Your task to perform on an android device: Add "alienware area 51" to the cart on costco, then select checkout. Image 0: 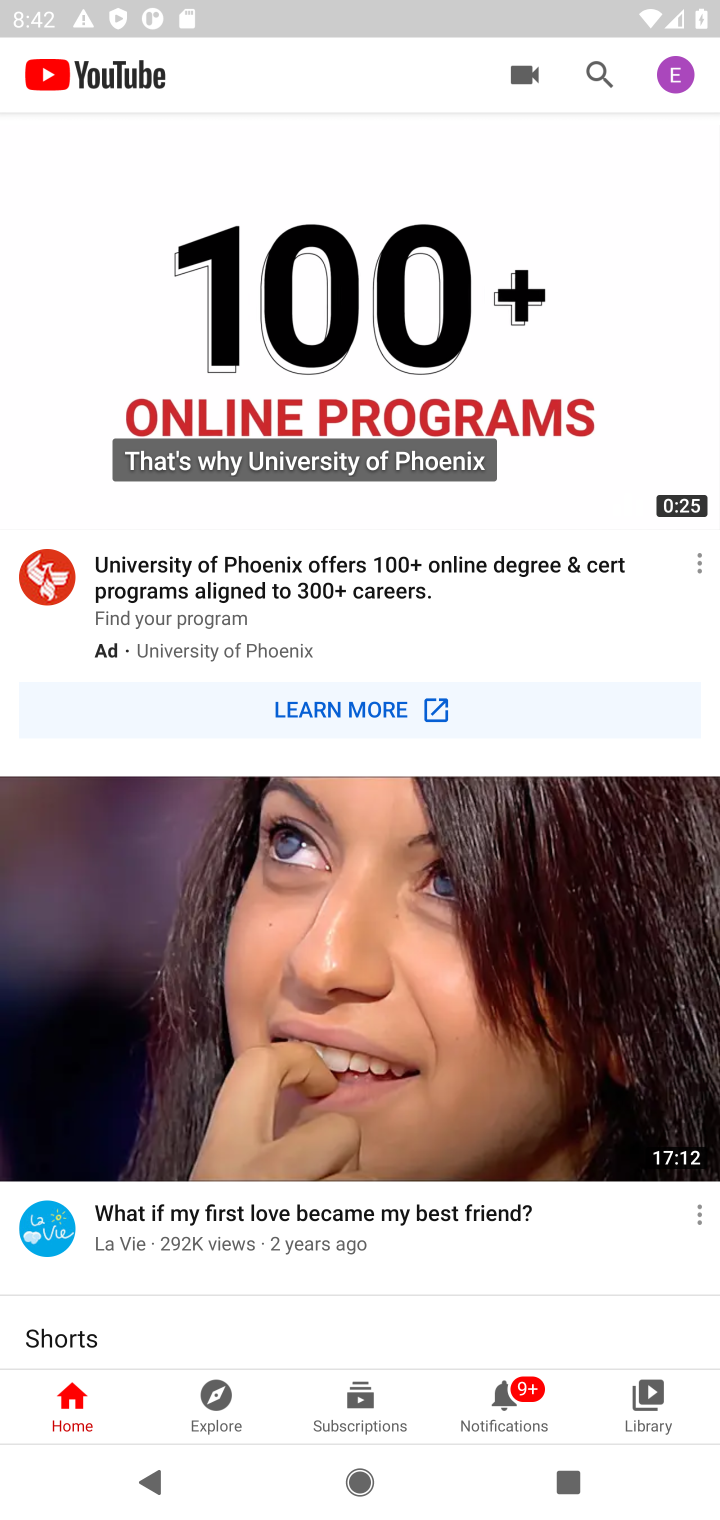
Step 0: press home button
Your task to perform on an android device: Add "alienware area 51" to the cart on costco, then select checkout. Image 1: 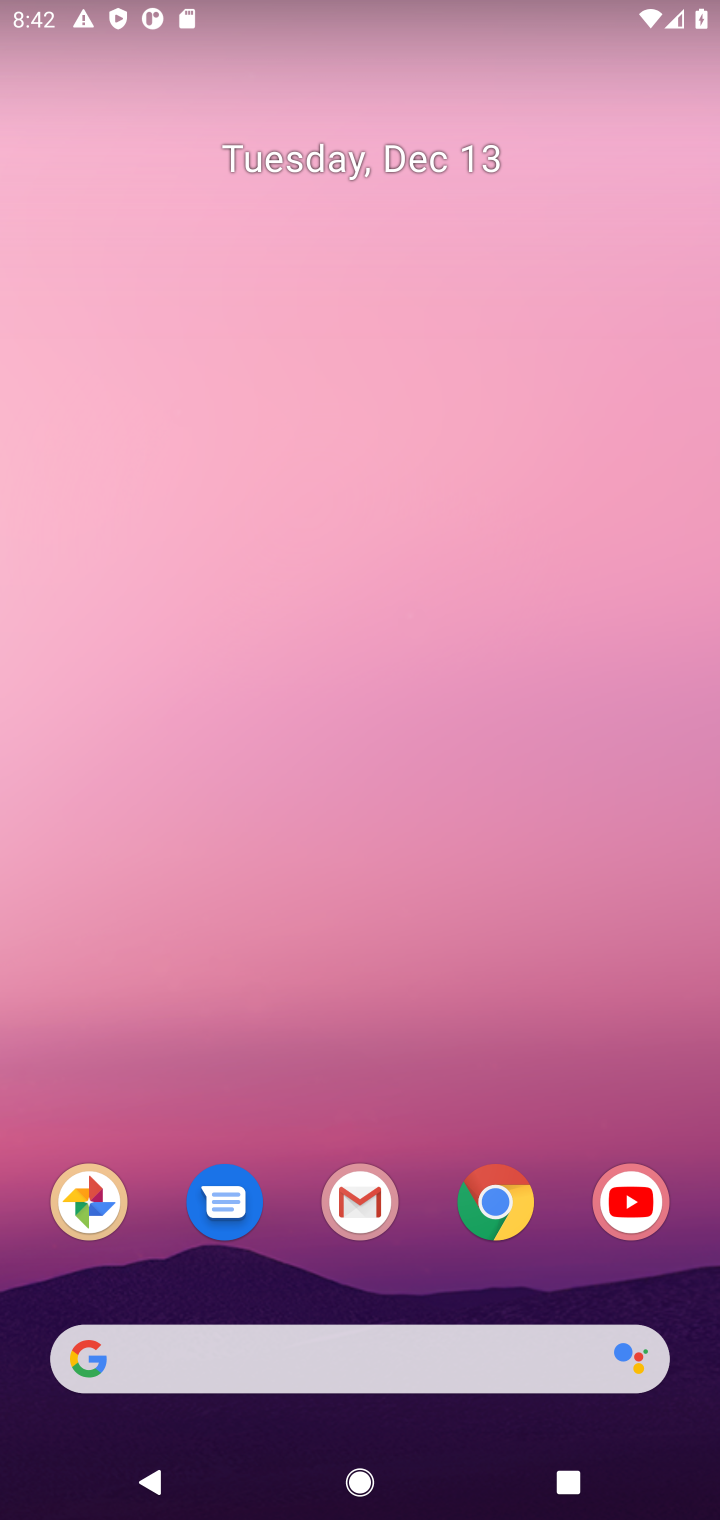
Step 1: click (497, 1203)
Your task to perform on an android device: Add "alienware area 51" to the cart on costco, then select checkout. Image 2: 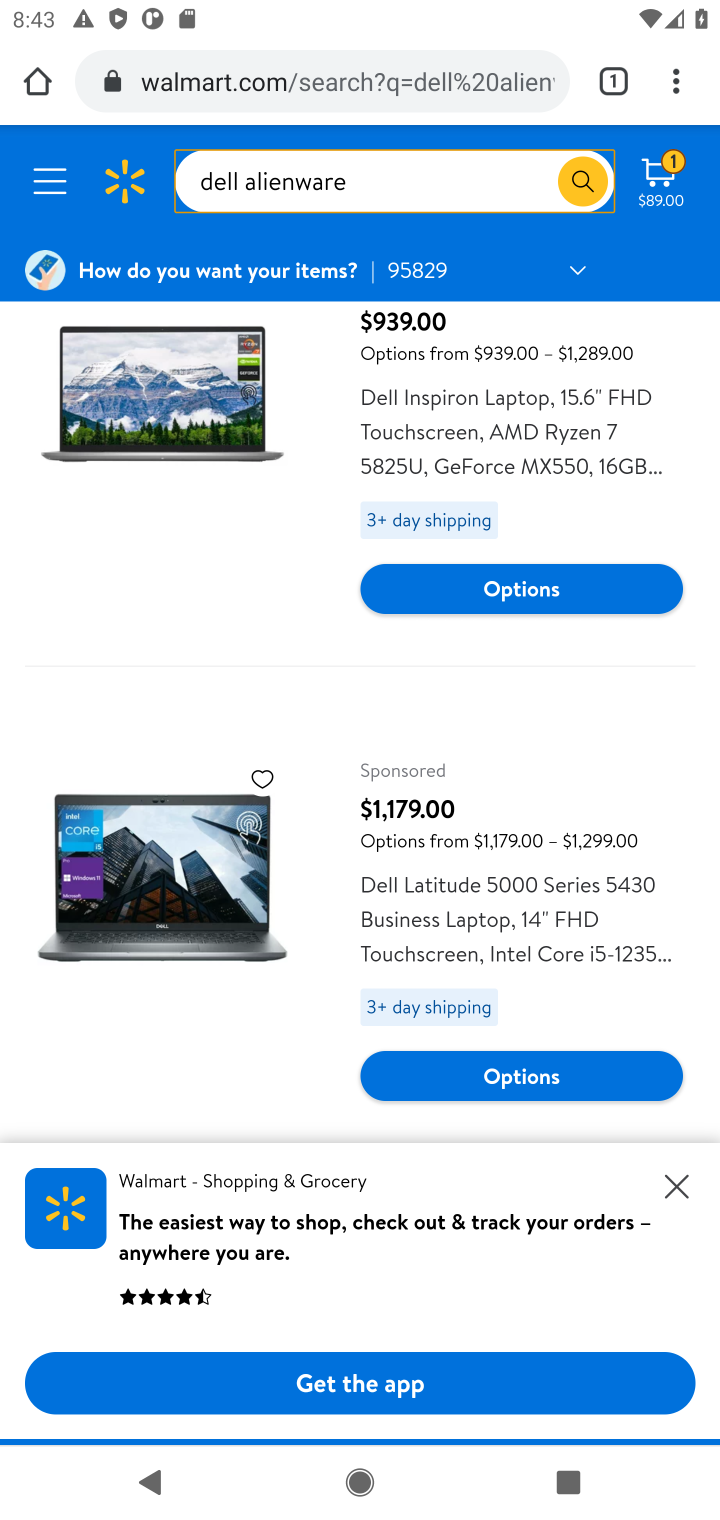
Step 2: click (308, 89)
Your task to perform on an android device: Add "alienware area 51" to the cart on costco, then select checkout. Image 3: 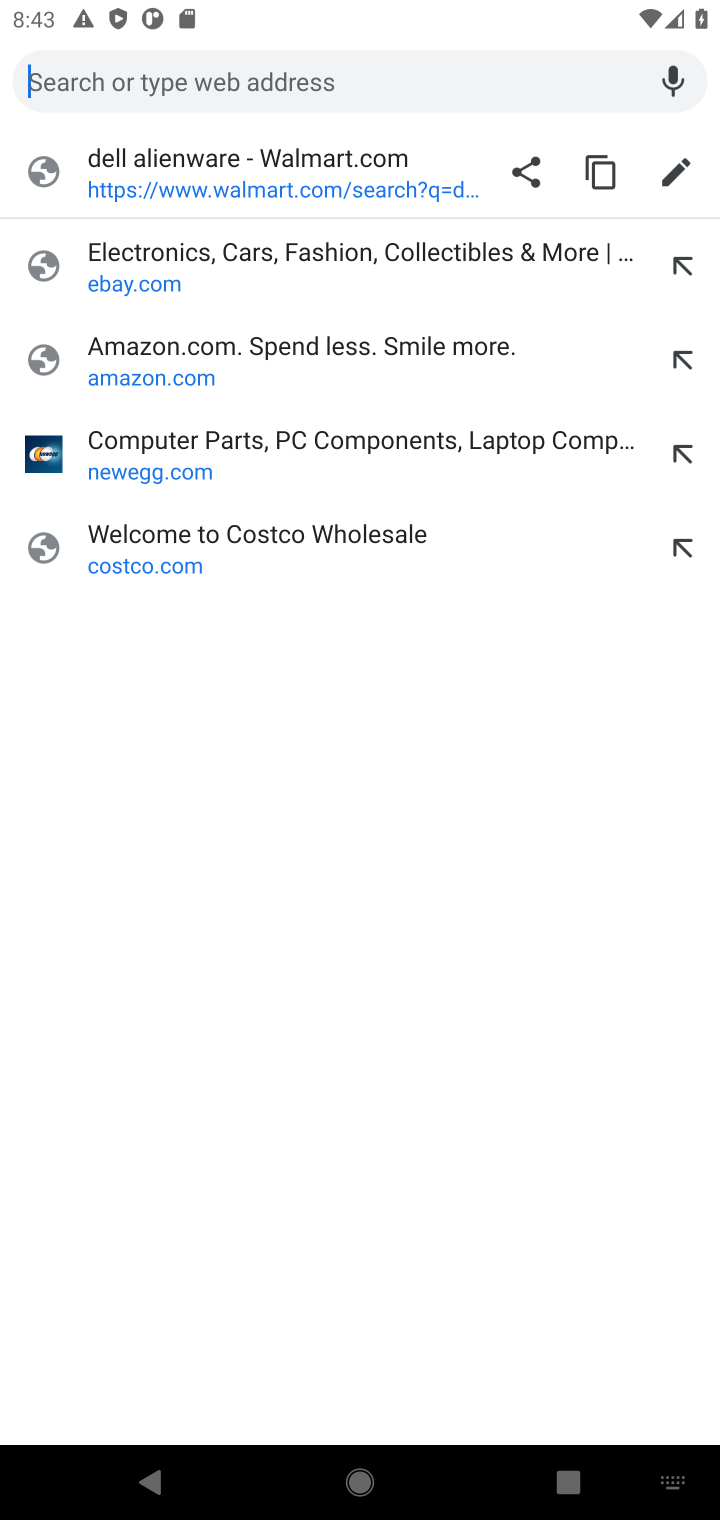
Step 3: click (125, 557)
Your task to perform on an android device: Add "alienware area 51" to the cart on costco, then select checkout. Image 4: 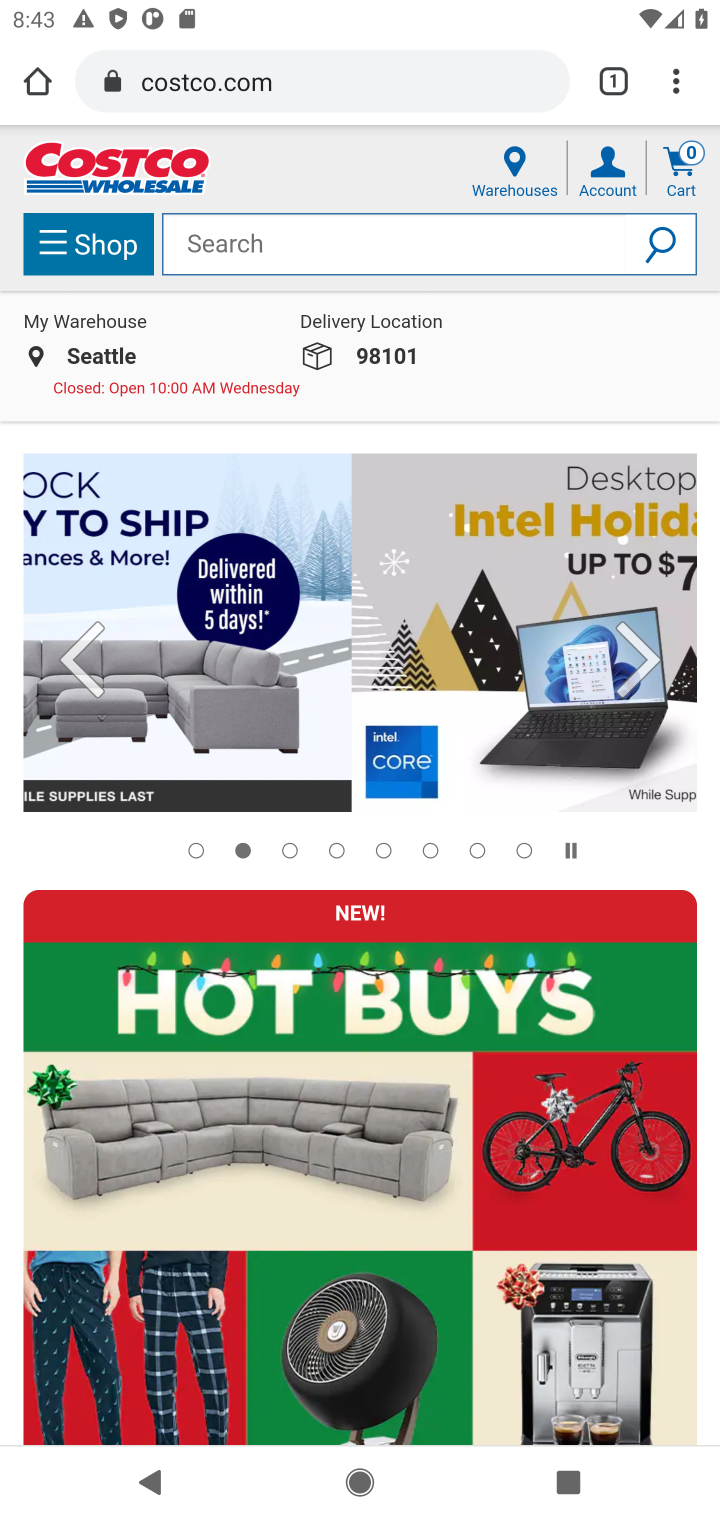
Step 4: click (289, 249)
Your task to perform on an android device: Add "alienware area 51" to the cart on costco, then select checkout. Image 5: 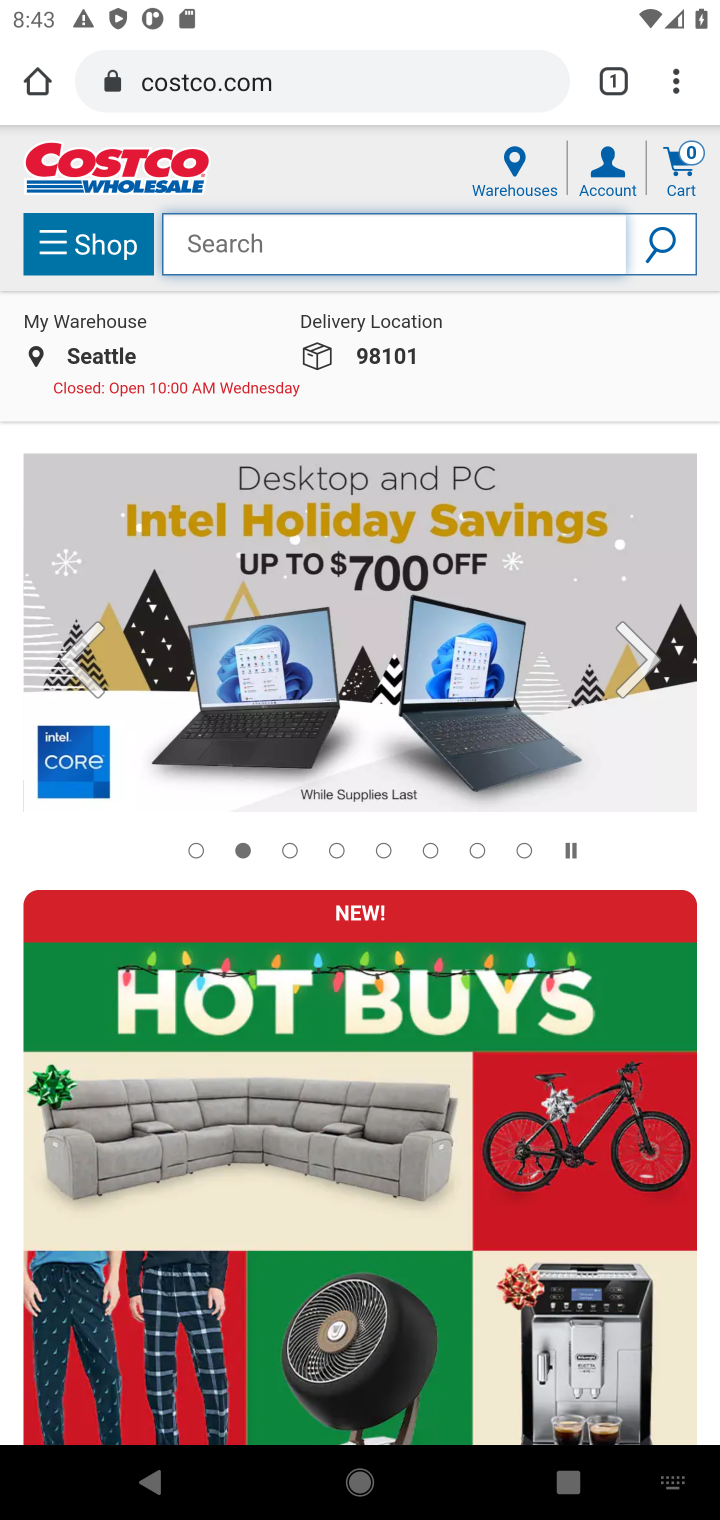
Step 5: type "alienware area 51"
Your task to perform on an android device: Add "alienware area 51" to the cart on costco, then select checkout. Image 6: 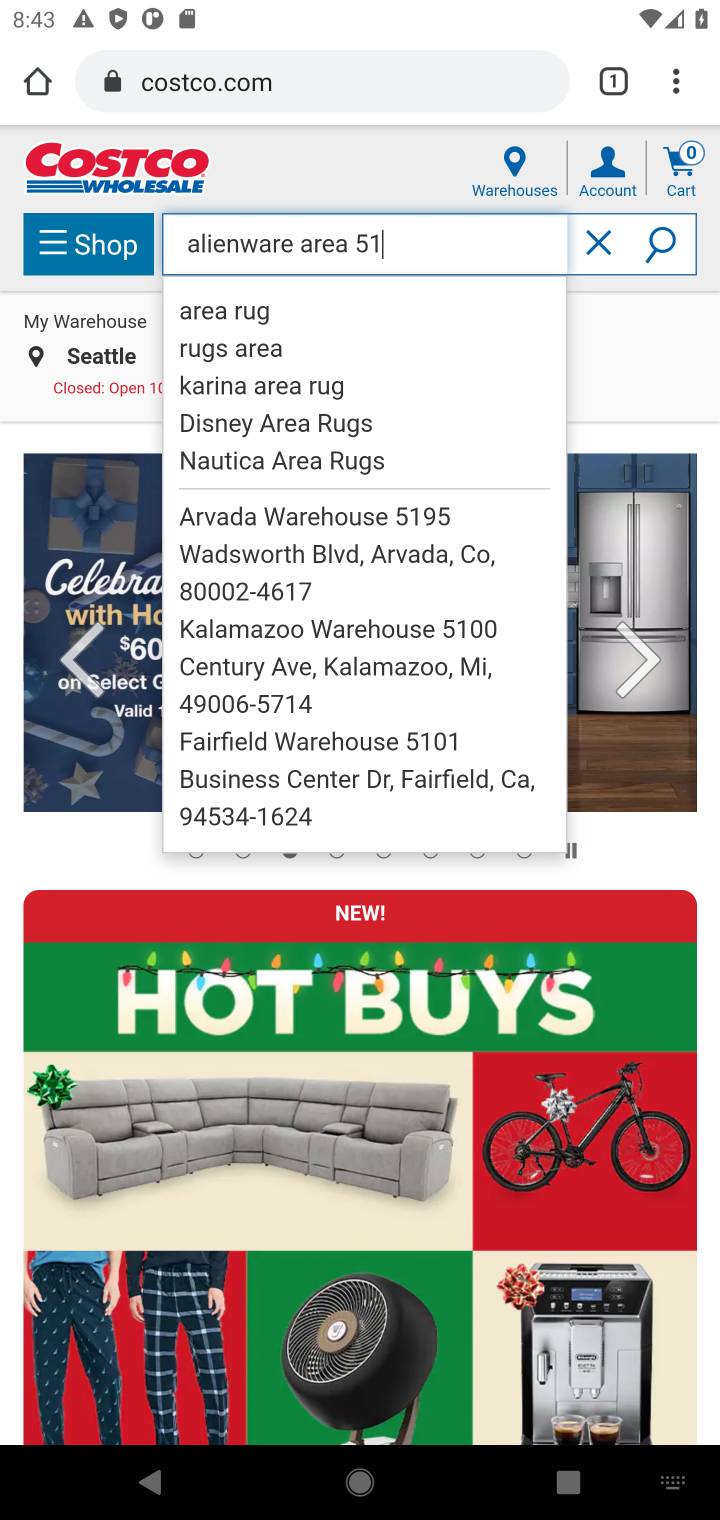
Step 6: click (669, 250)
Your task to perform on an android device: Add "alienware area 51" to the cart on costco, then select checkout. Image 7: 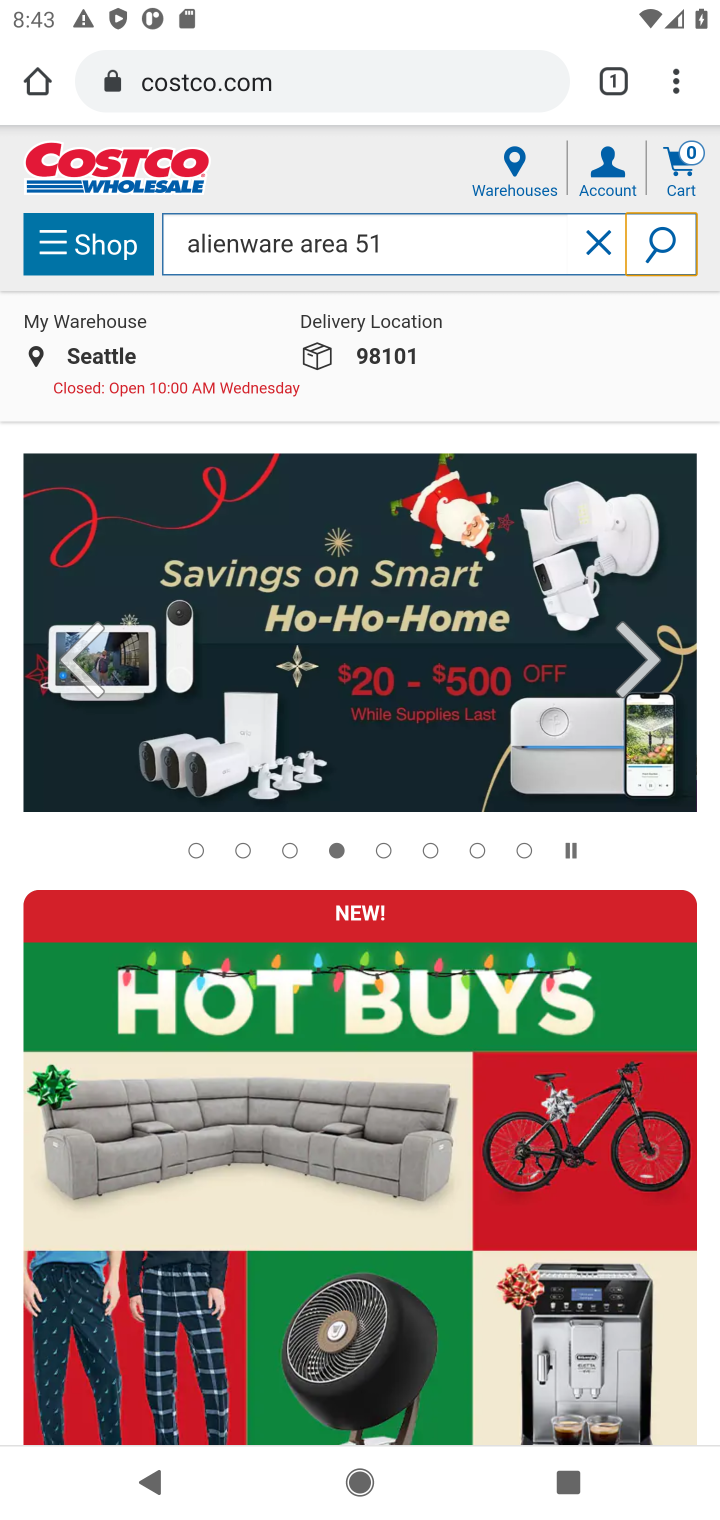
Step 7: click (658, 249)
Your task to perform on an android device: Add "alienware area 51" to the cart on costco, then select checkout. Image 8: 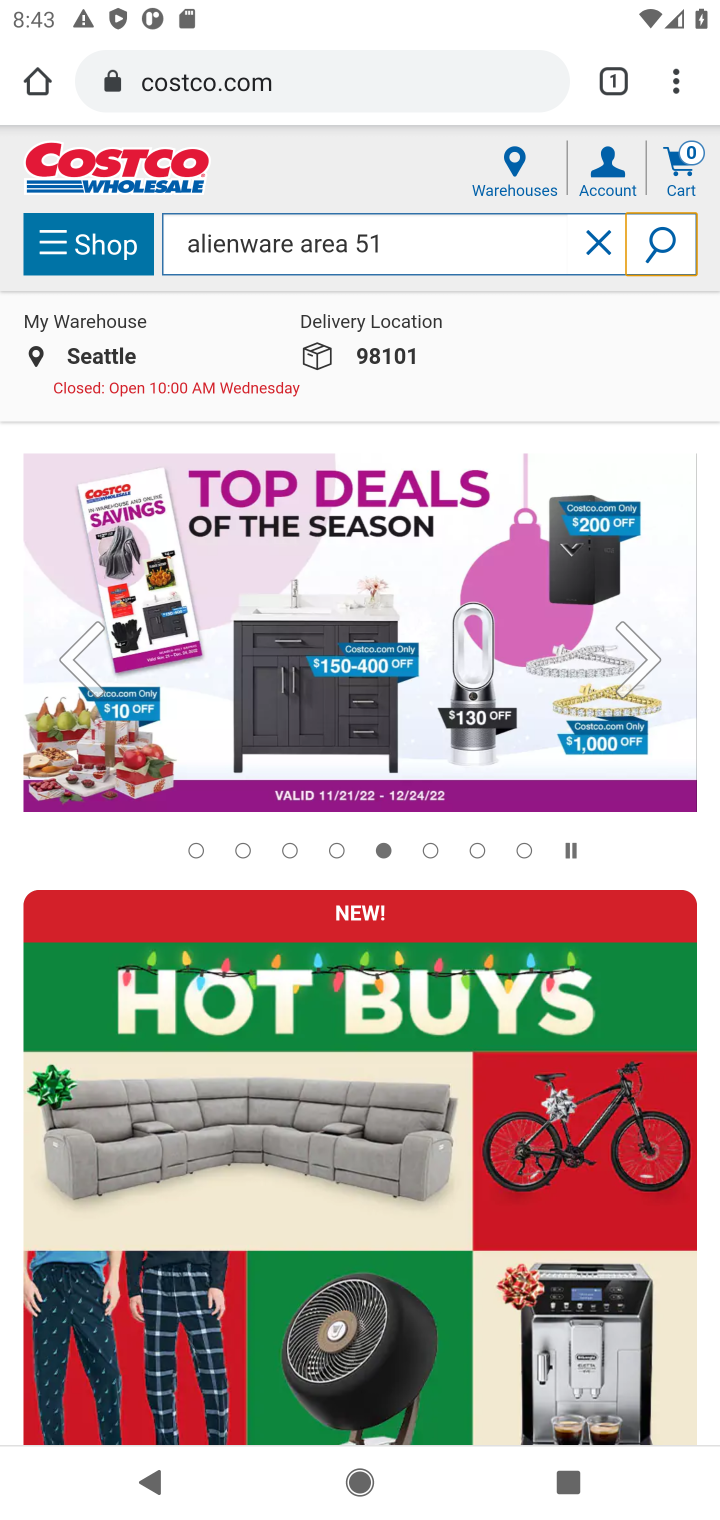
Step 8: click (658, 249)
Your task to perform on an android device: Add "alienware area 51" to the cart on costco, then select checkout. Image 9: 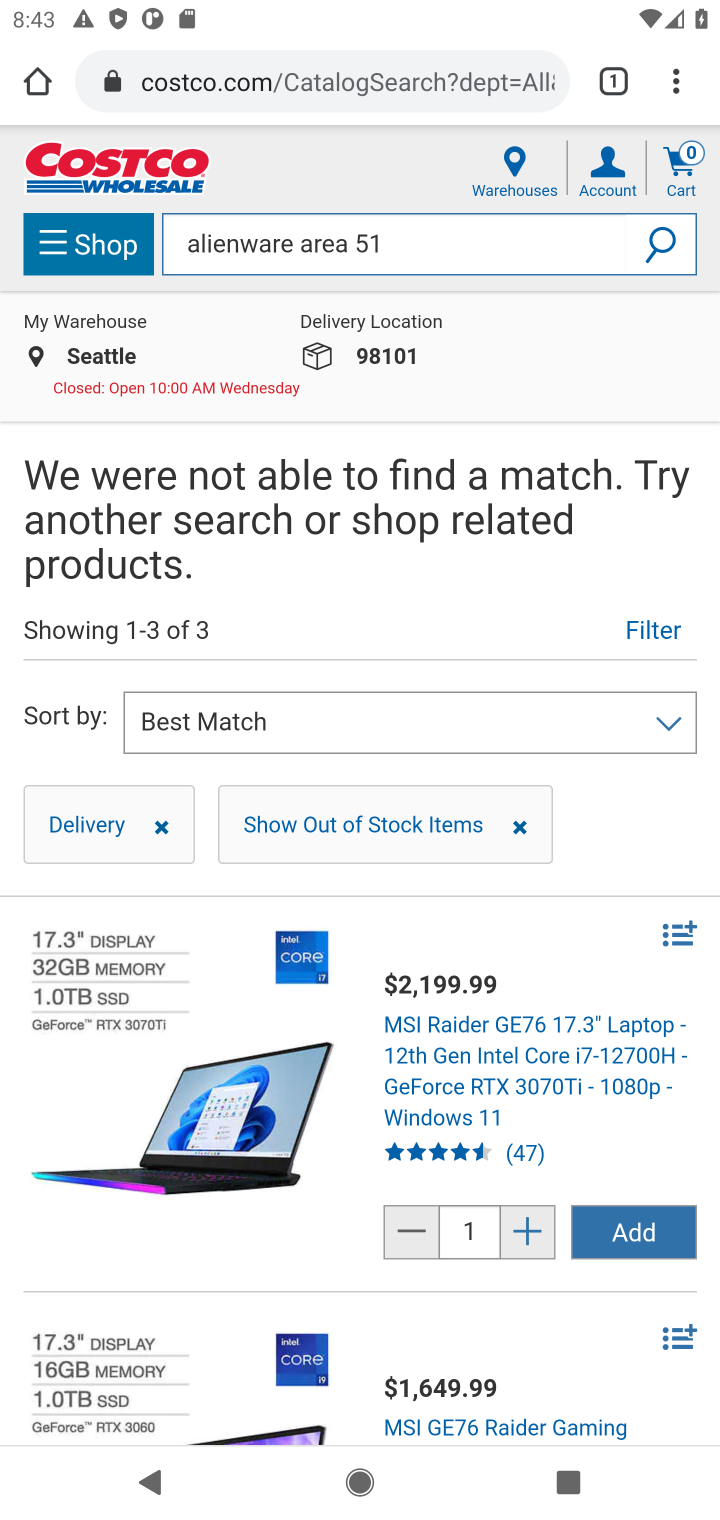
Step 9: task complete